Your task to perform on an android device: Open settings on Google Maps Image 0: 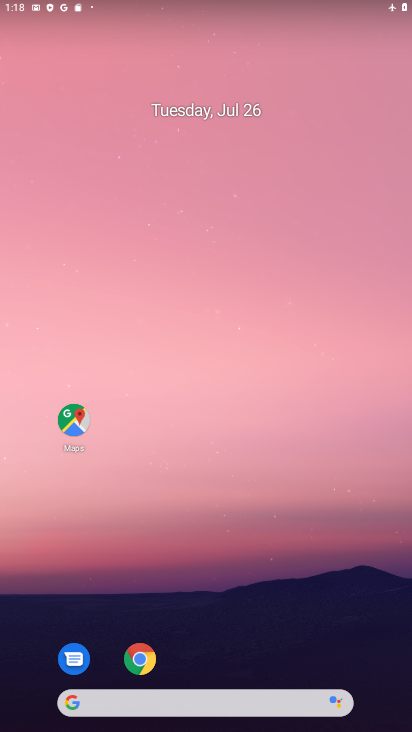
Step 0: press home button
Your task to perform on an android device: Open settings on Google Maps Image 1: 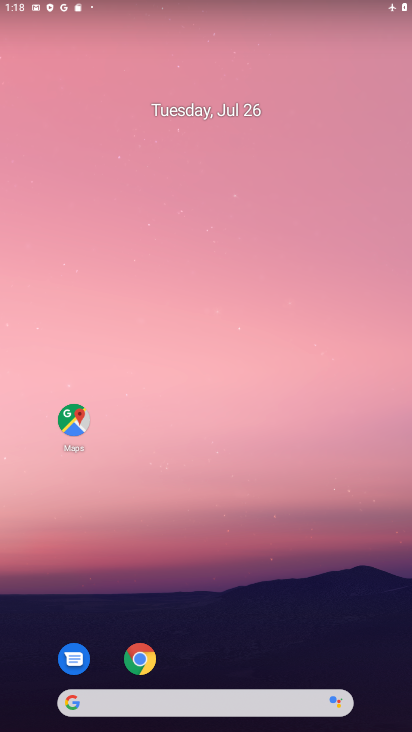
Step 1: drag from (222, 649) to (137, 0)
Your task to perform on an android device: Open settings on Google Maps Image 2: 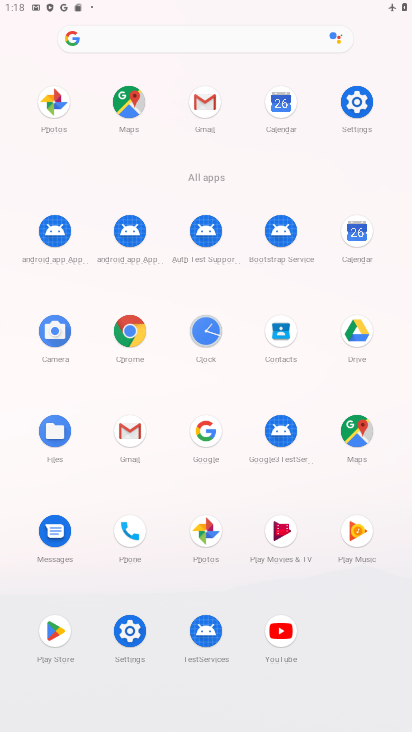
Step 2: click (125, 102)
Your task to perform on an android device: Open settings on Google Maps Image 3: 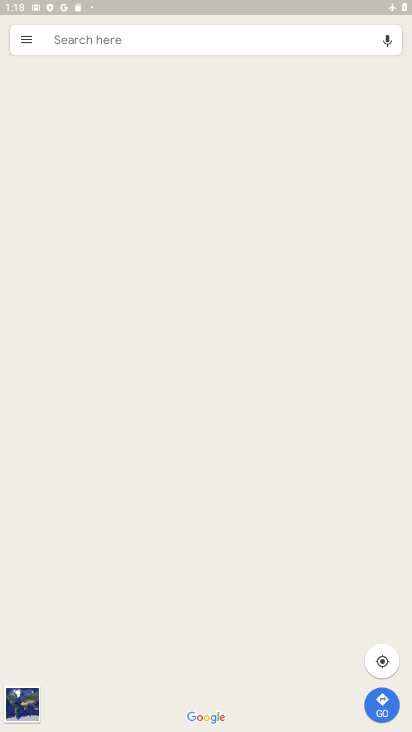
Step 3: click (24, 39)
Your task to perform on an android device: Open settings on Google Maps Image 4: 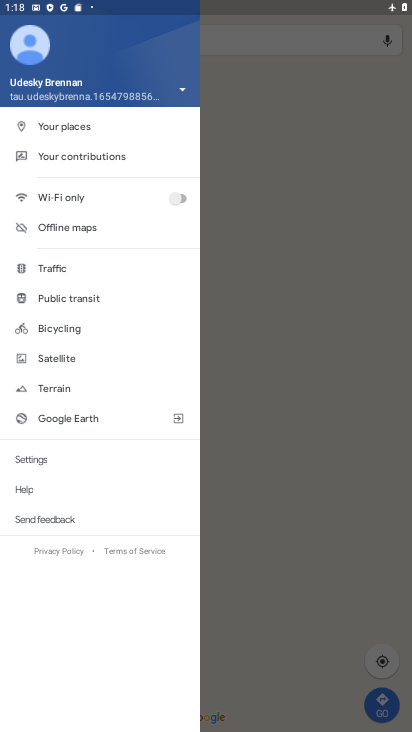
Step 4: click (33, 456)
Your task to perform on an android device: Open settings on Google Maps Image 5: 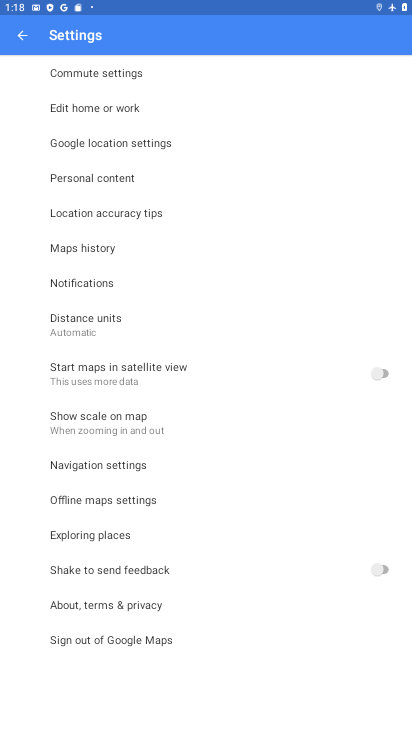
Step 5: task complete